Your task to perform on an android device: Open calendar and show me the third week of next month Image 0: 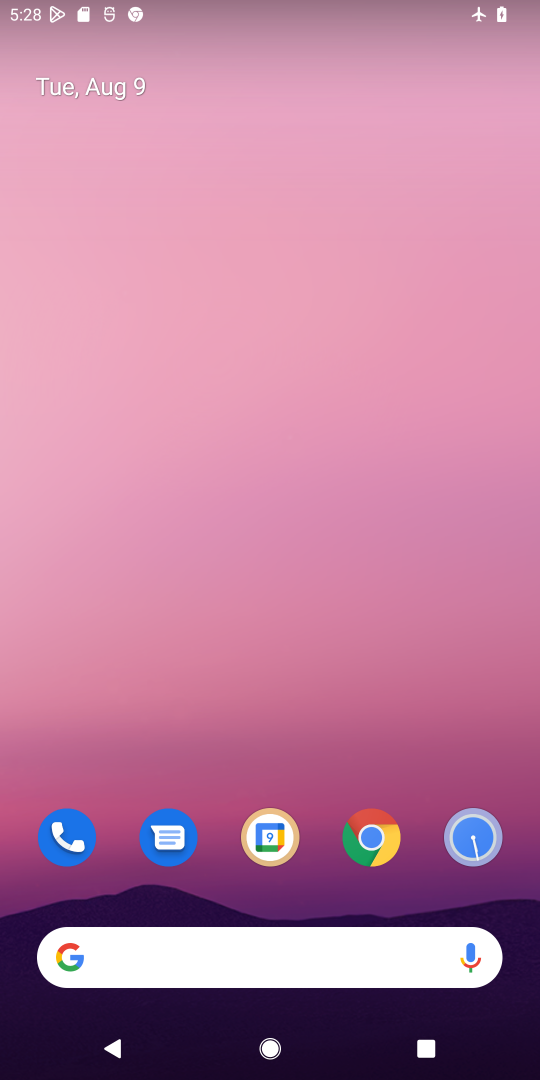
Step 0: drag from (236, 889) to (283, 226)
Your task to perform on an android device: Open calendar and show me the third week of next month Image 1: 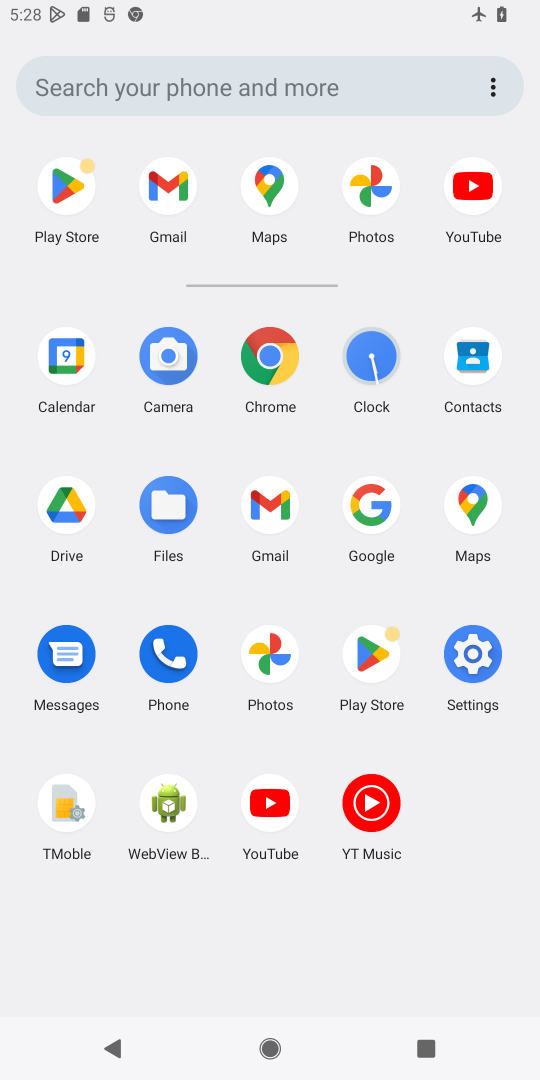
Step 1: click (68, 345)
Your task to perform on an android device: Open calendar and show me the third week of next month Image 2: 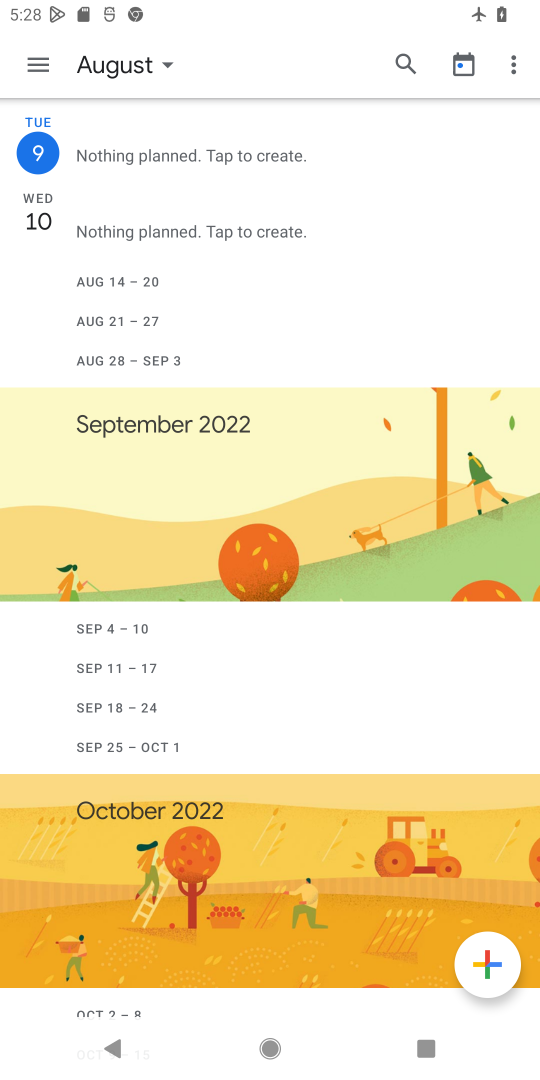
Step 2: click (45, 53)
Your task to perform on an android device: Open calendar and show me the third week of next month Image 3: 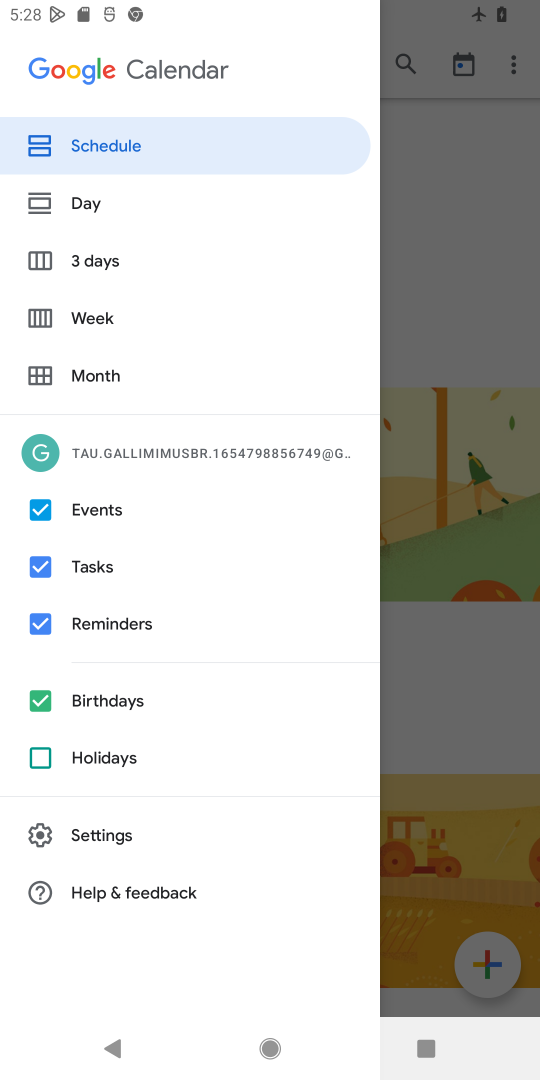
Step 3: click (112, 314)
Your task to perform on an android device: Open calendar and show me the third week of next month Image 4: 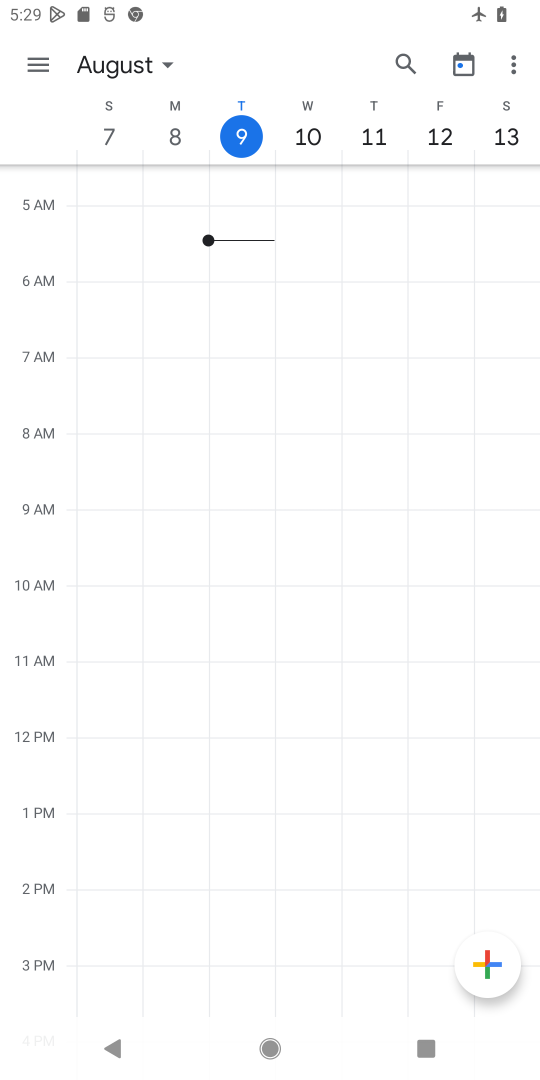
Step 4: task complete